Your task to perform on an android device: change timer sound Image 0: 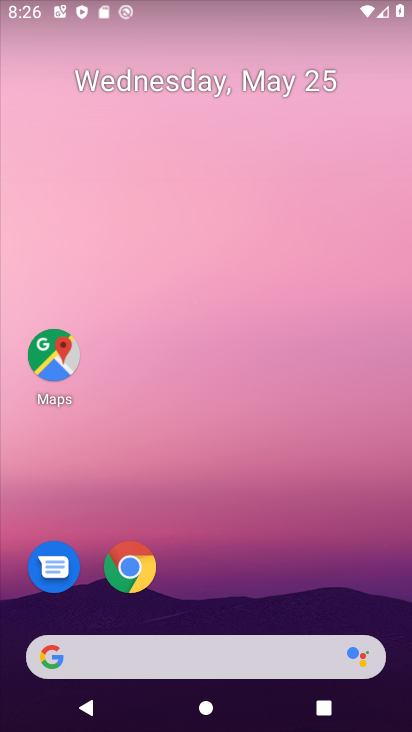
Step 0: drag from (278, 538) to (279, 144)
Your task to perform on an android device: change timer sound Image 1: 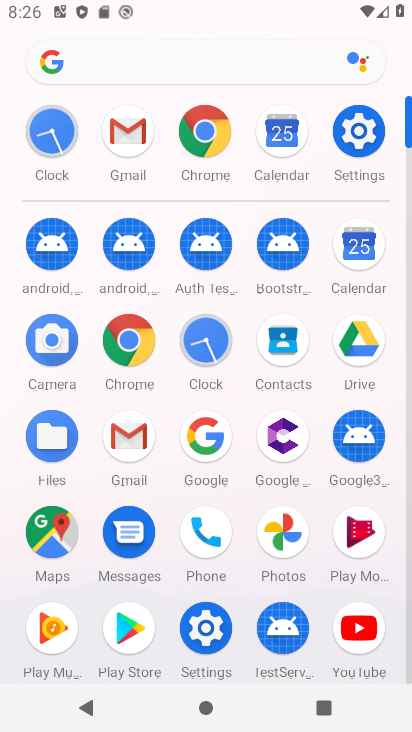
Step 1: click (361, 126)
Your task to perform on an android device: change timer sound Image 2: 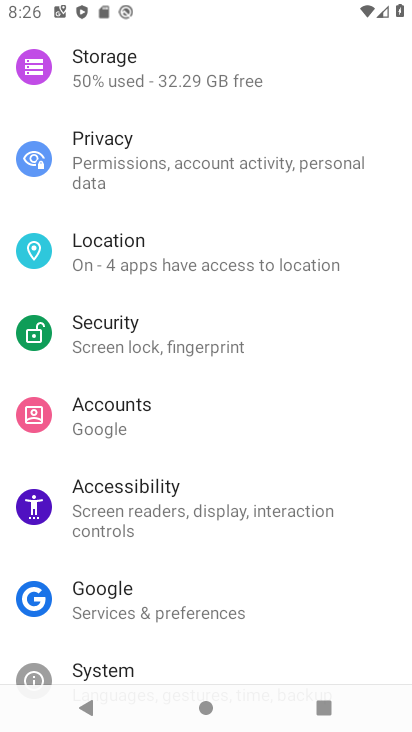
Step 2: drag from (217, 281) to (232, 653)
Your task to perform on an android device: change timer sound Image 3: 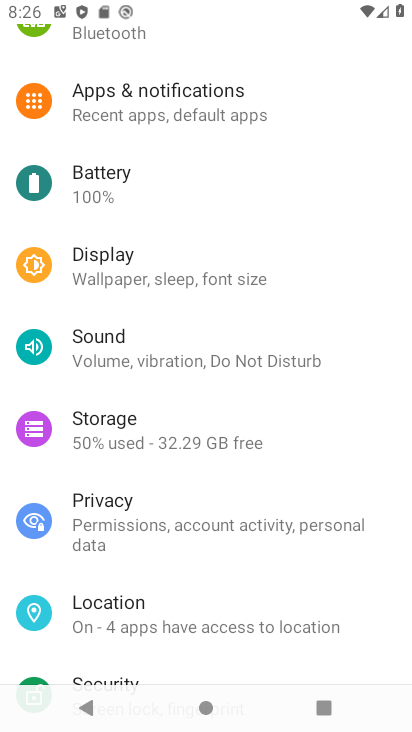
Step 3: click (171, 342)
Your task to perform on an android device: change timer sound Image 4: 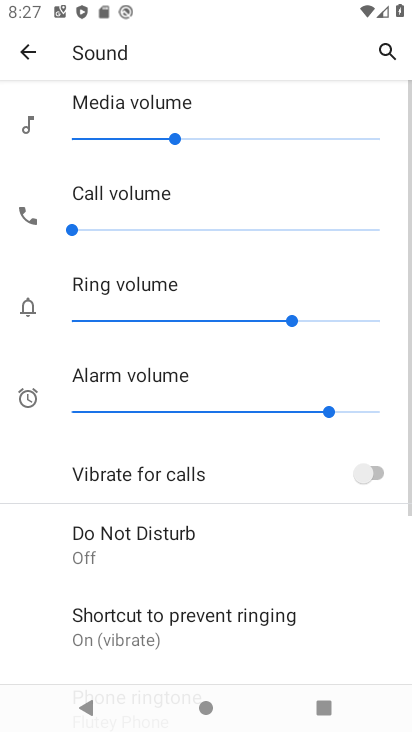
Step 4: task complete